Your task to perform on an android device: Check the news Image 0: 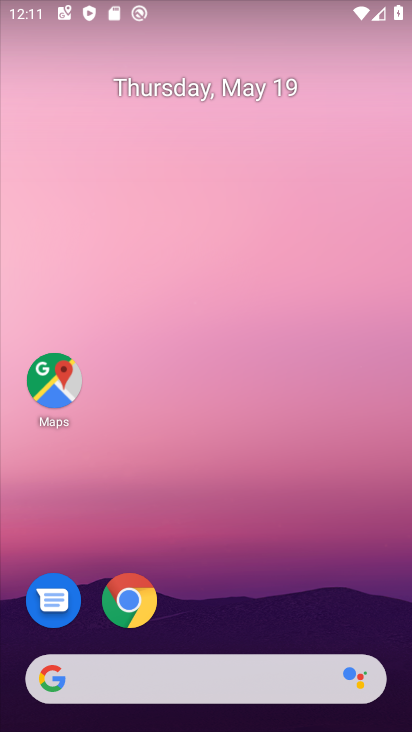
Step 0: drag from (302, 564) to (193, 46)
Your task to perform on an android device: Check the news Image 1: 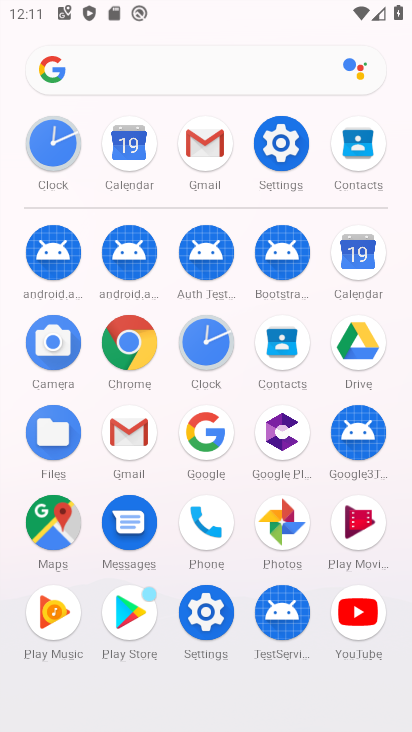
Step 1: click (198, 451)
Your task to perform on an android device: Check the news Image 2: 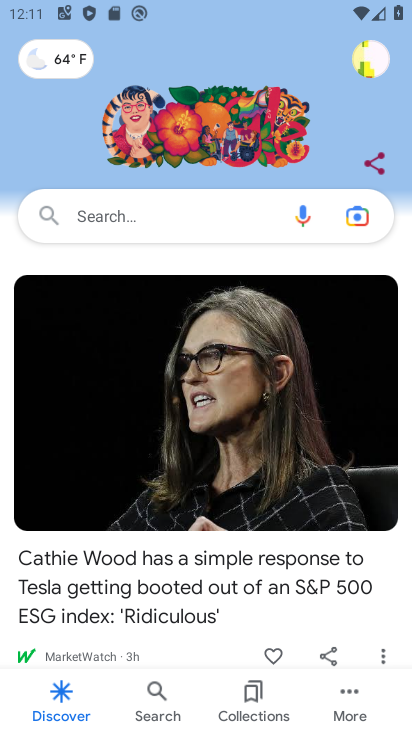
Step 2: click (173, 210)
Your task to perform on an android device: Check the news Image 3: 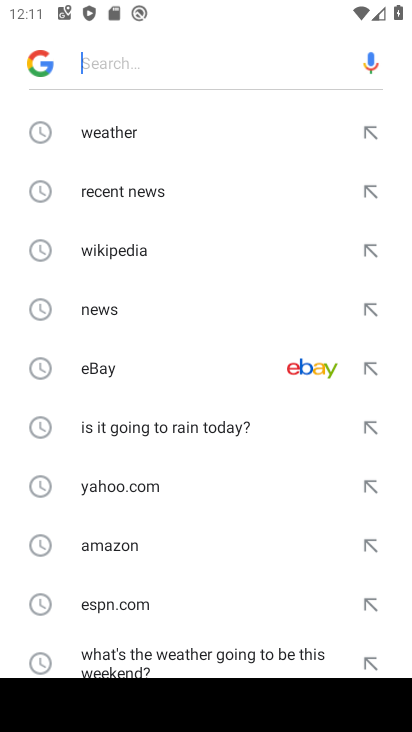
Step 3: click (125, 300)
Your task to perform on an android device: Check the news Image 4: 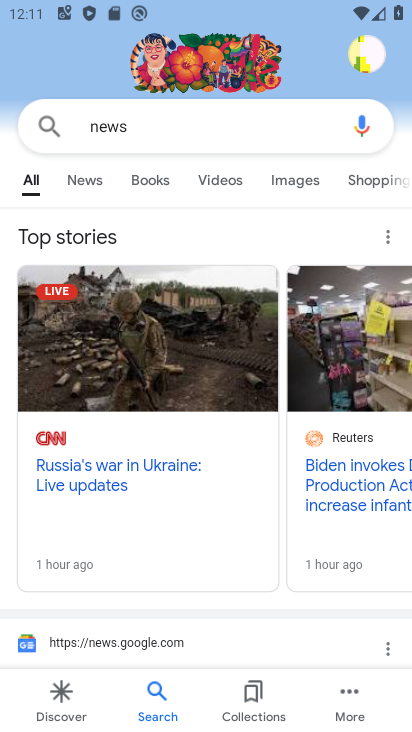
Step 4: task complete